Your task to perform on an android device: Is it going to rain today? Image 0: 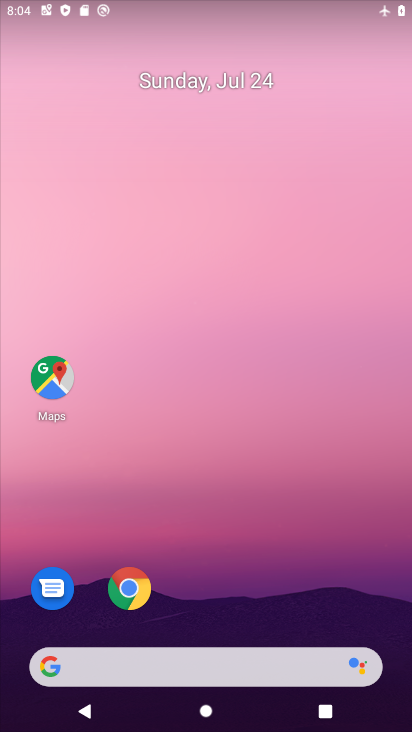
Step 0: drag from (393, 623) to (306, 57)
Your task to perform on an android device: Is it going to rain today? Image 1: 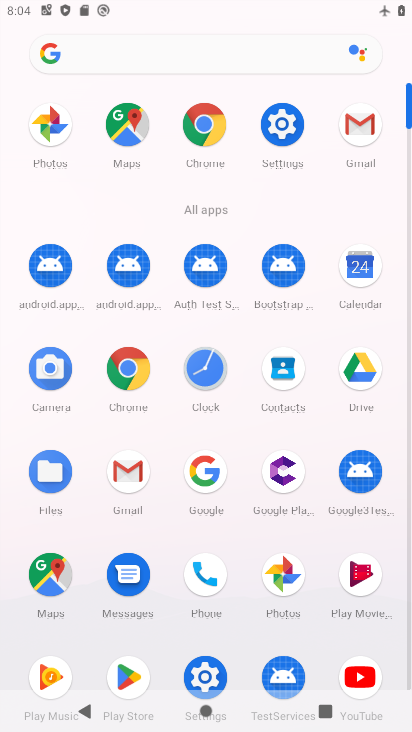
Step 1: click (209, 134)
Your task to perform on an android device: Is it going to rain today? Image 2: 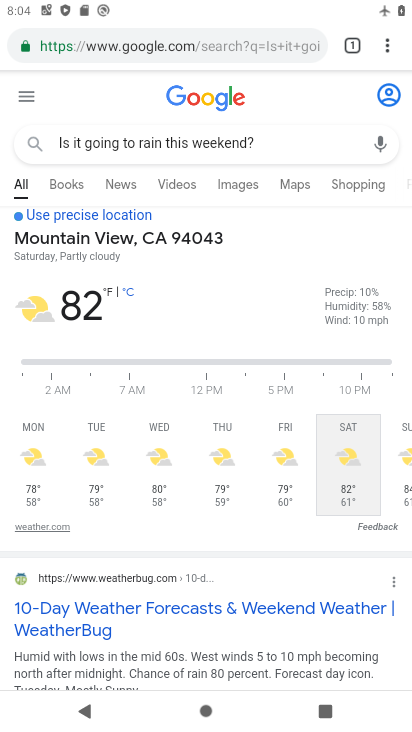
Step 2: click (294, 143)
Your task to perform on an android device: Is it going to rain today? Image 3: 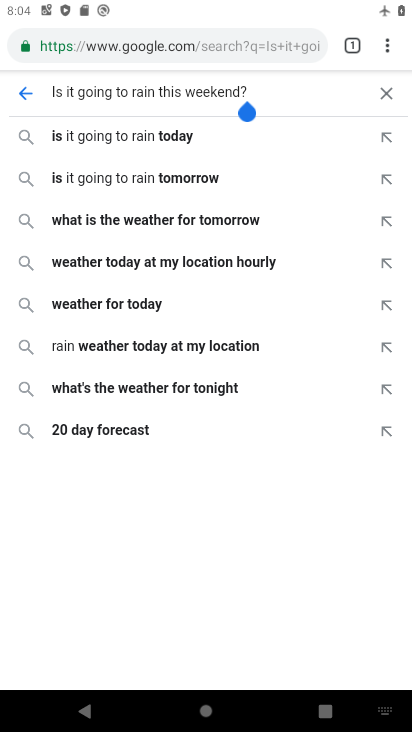
Step 3: click (327, 131)
Your task to perform on an android device: Is it going to rain today? Image 4: 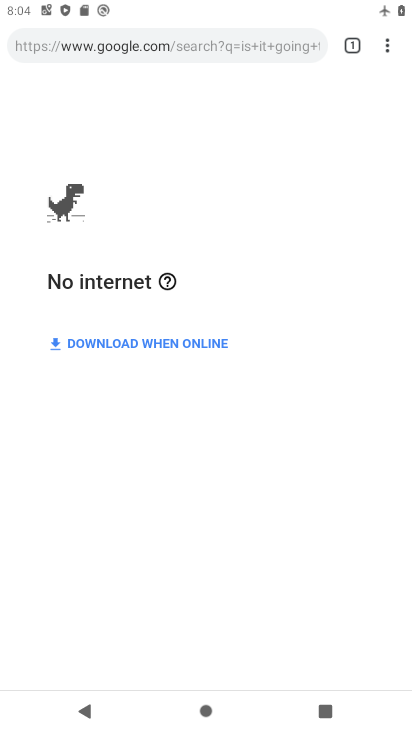
Step 4: task complete